Your task to perform on an android device: set the stopwatch Image 0: 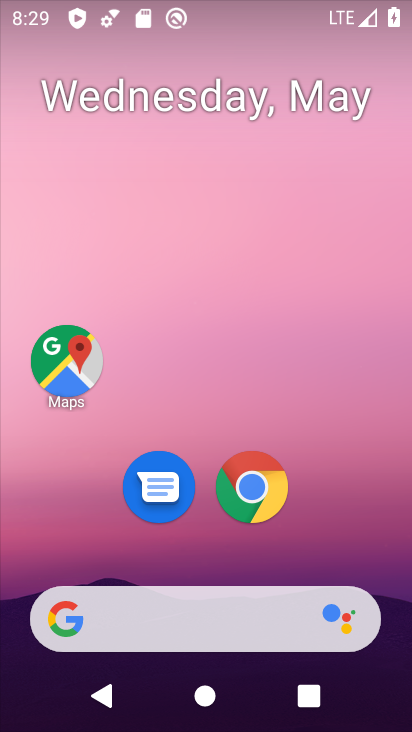
Step 0: drag from (210, 563) to (162, 117)
Your task to perform on an android device: set the stopwatch Image 1: 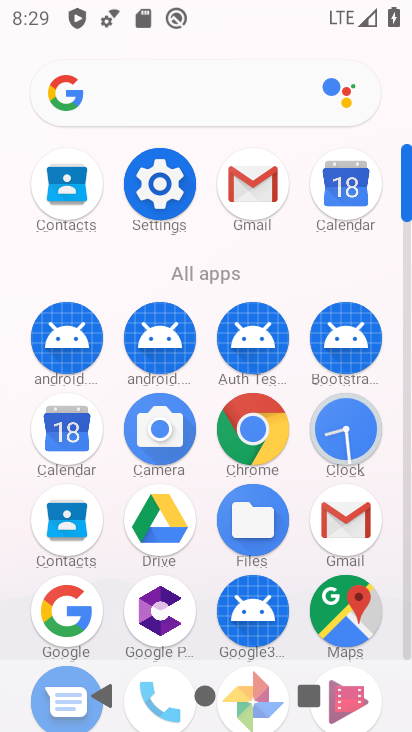
Step 1: click (352, 437)
Your task to perform on an android device: set the stopwatch Image 2: 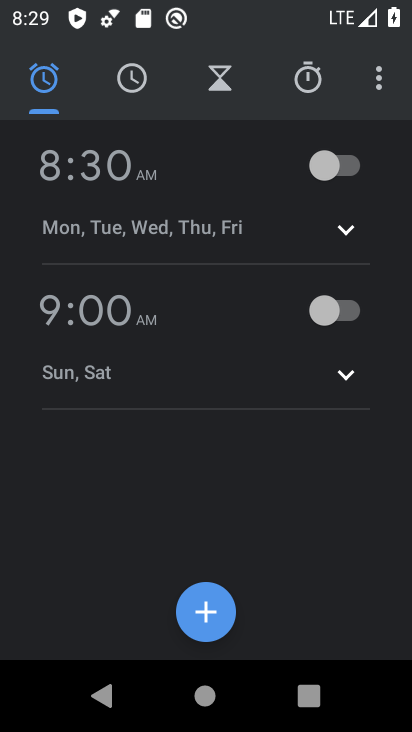
Step 2: click (319, 83)
Your task to perform on an android device: set the stopwatch Image 3: 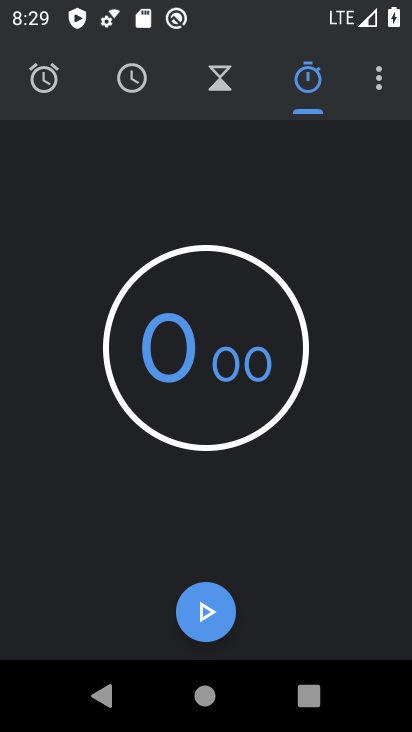
Step 3: click (226, 623)
Your task to perform on an android device: set the stopwatch Image 4: 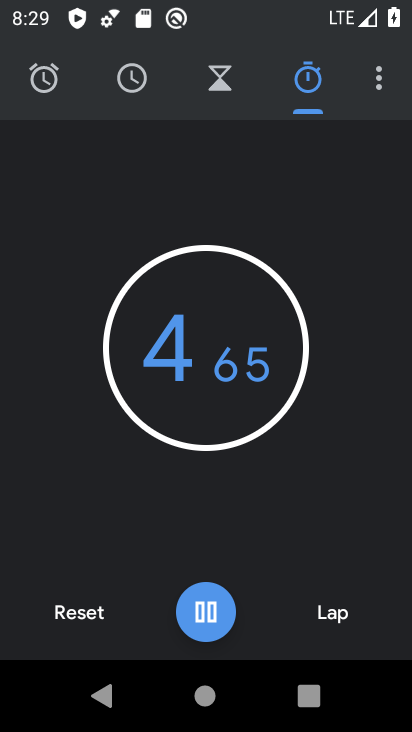
Step 4: task complete